Your task to perform on an android device: check storage Image 0: 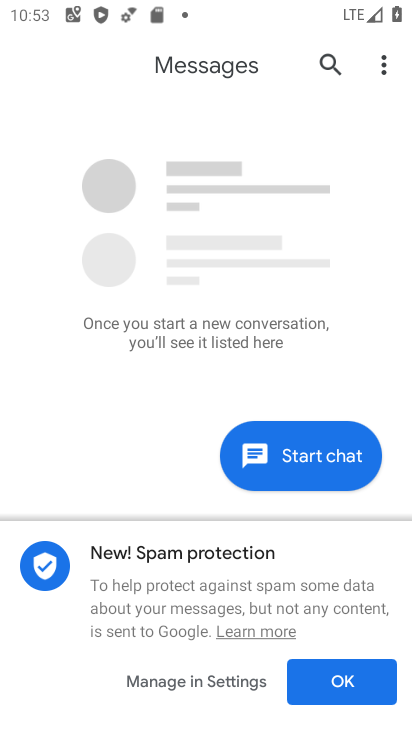
Step 0: press home button
Your task to perform on an android device: check storage Image 1: 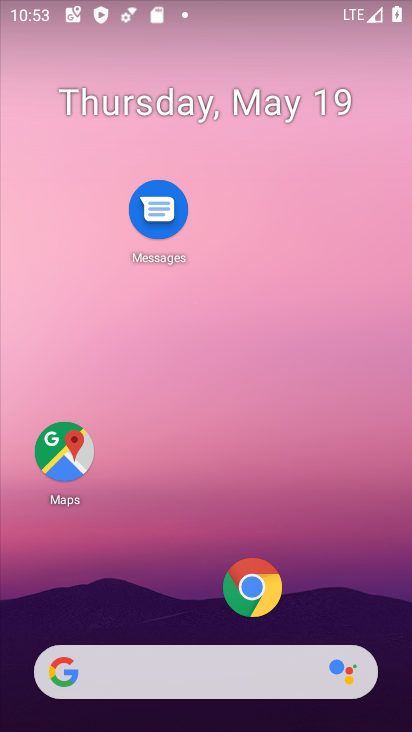
Step 1: drag from (163, 627) to (183, 52)
Your task to perform on an android device: check storage Image 2: 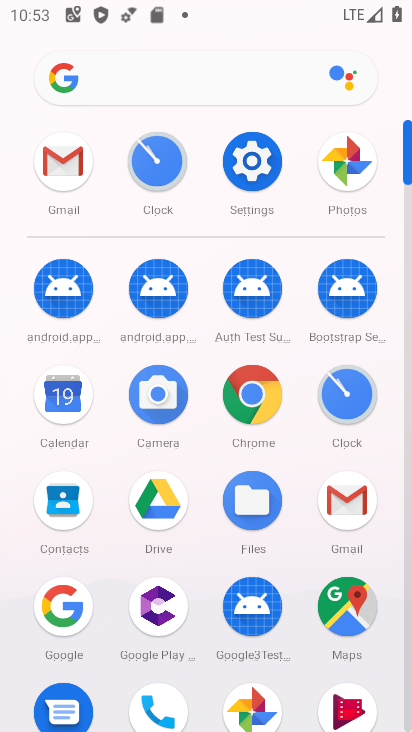
Step 2: click (236, 148)
Your task to perform on an android device: check storage Image 3: 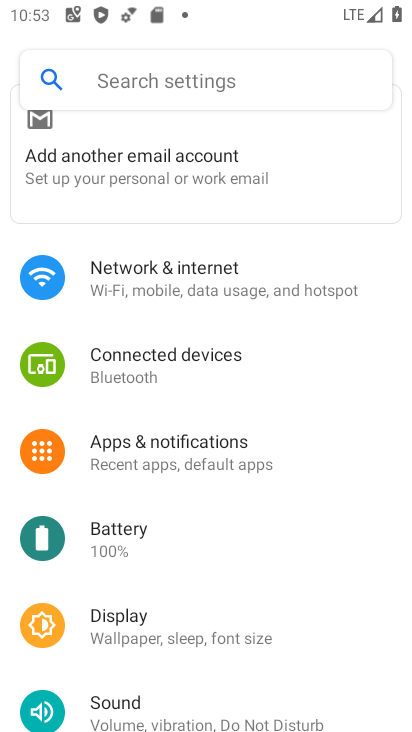
Step 3: drag from (135, 675) to (153, 357)
Your task to perform on an android device: check storage Image 4: 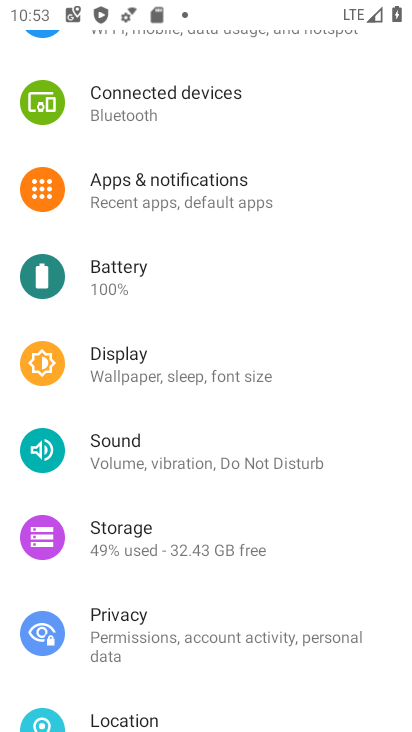
Step 4: click (149, 577)
Your task to perform on an android device: check storage Image 5: 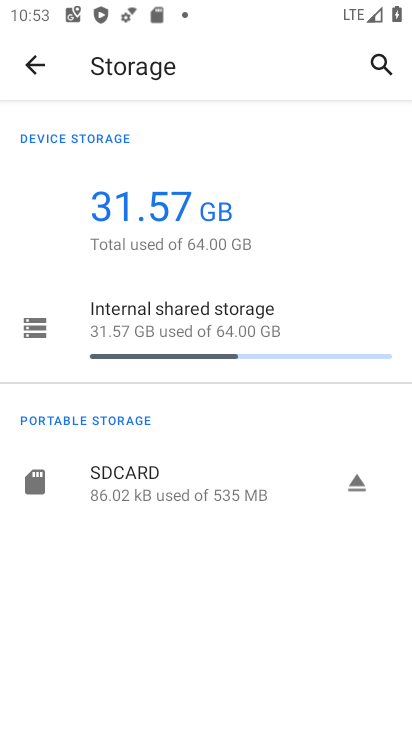
Step 5: task complete